Your task to perform on an android device: toggle wifi Image 0: 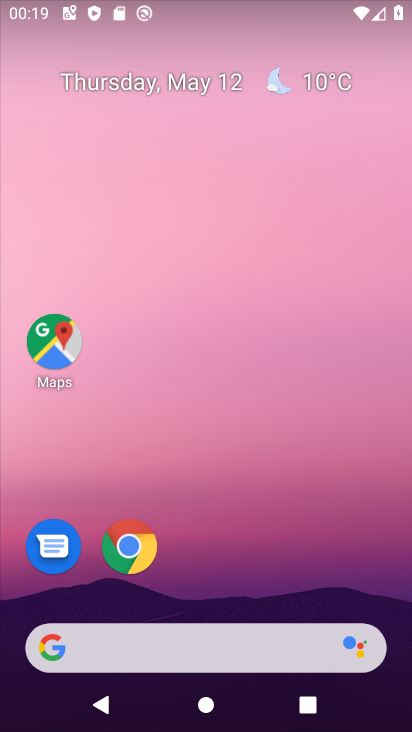
Step 0: drag from (235, 579) to (297, 110)
Your task to perform on an android device: toggle wifi Image 1: 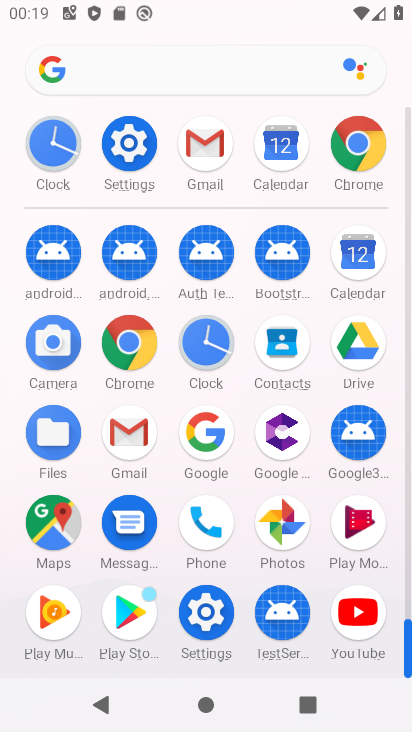
Step 1: click (137, 148)
Your task to perform on an android device: toggle wifi Image 2: 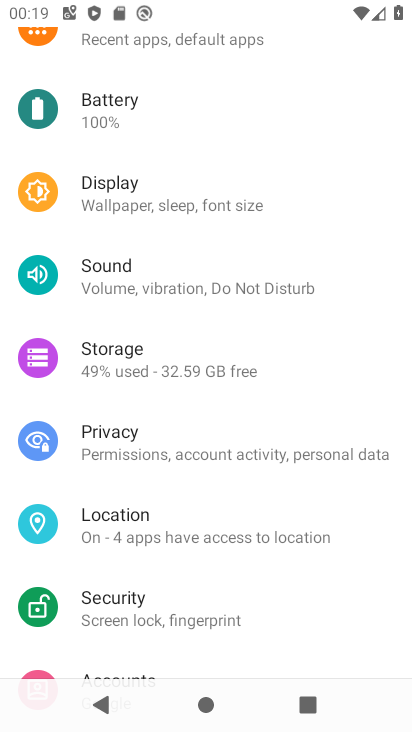
Step 2: drag from (219, 135) to (261, 554)
Your task to perform on an android device: toggle wifi Image 3: 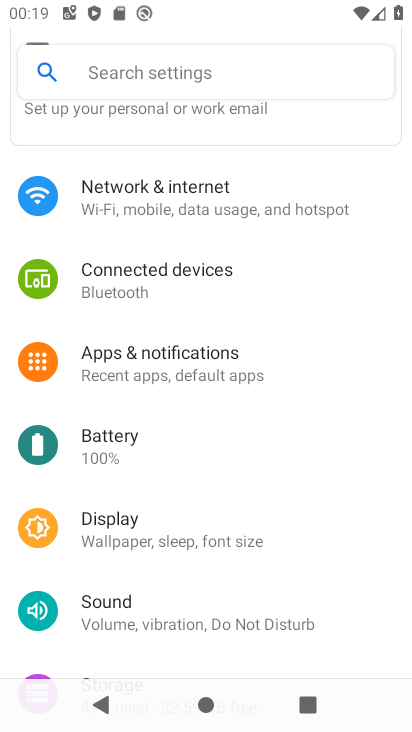
Step 3: drag from (268, 223) to (303, 596)
Your task to perform on an android device: toggle wifi Image 4: 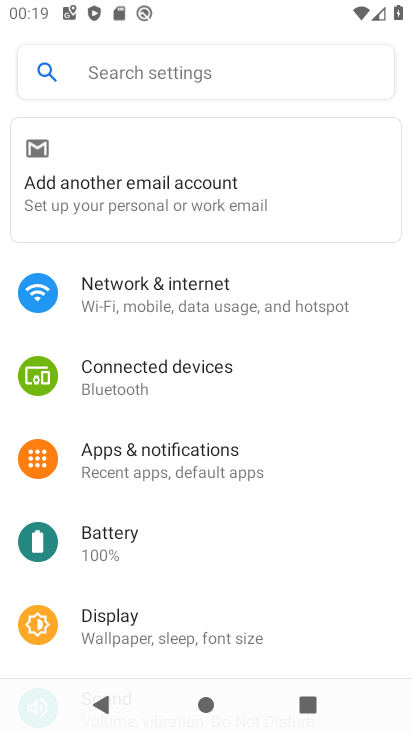
Step 4: click (172, 290)
Your task to perform on an android device: toggle wifi Image 5: 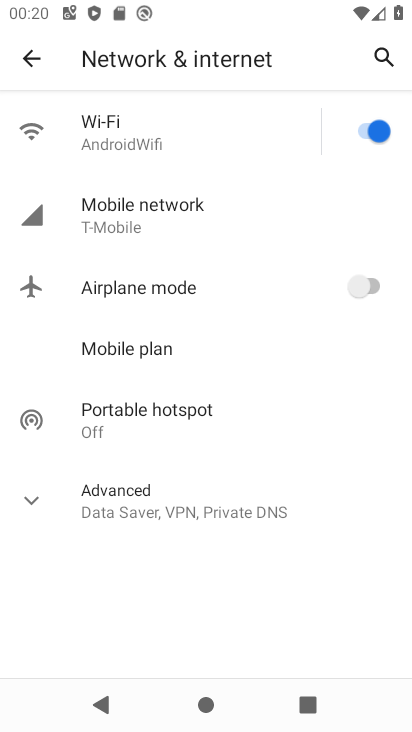
Step 5: click (148, 138)
Your task to perform on an android device: toggle wifi Image 6: 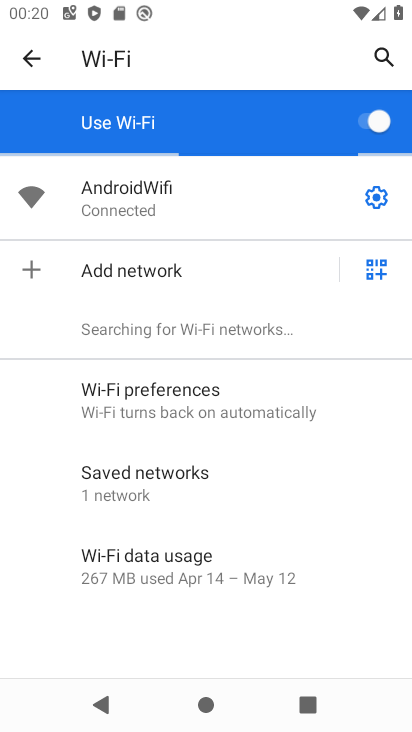
Step 6: task complete